Your task to perform on an android device: What's the weather today? Image 0: 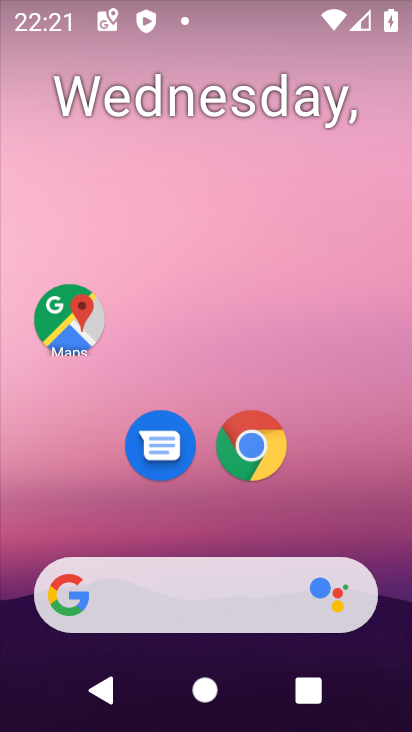
Step 0: drag from (274, 532) to (278, 172)
Your task to perform on an android device: What's the weather today? Image 1: 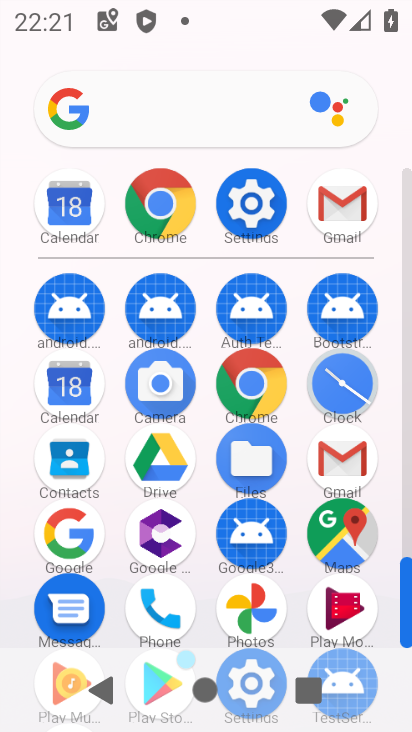
Step 1: click (248, 378)
Your task to perform on an android device: What's the weather today? Image 2: 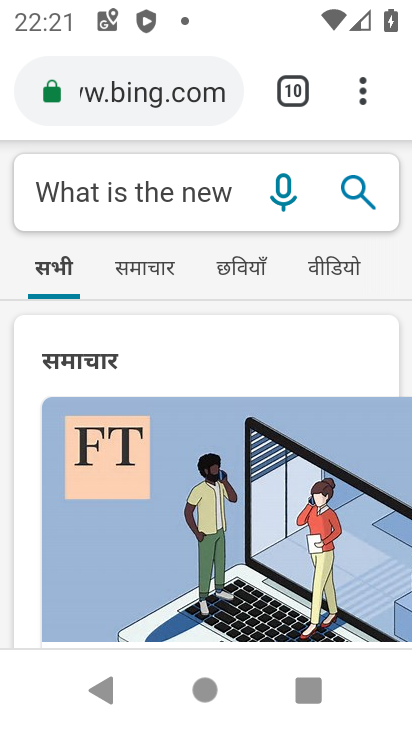
Step 2: click (350, 86)
Your task to perform on an android device: What's the weather today? Image 3: 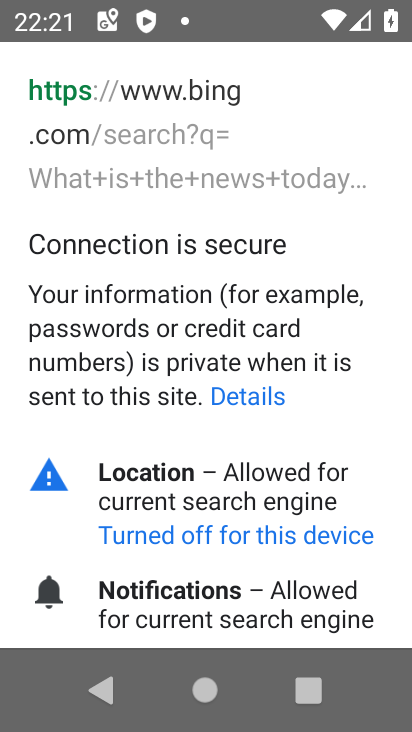
Step 3: press back button
Your task to perform on an android device: What's the weather today? Image 4: 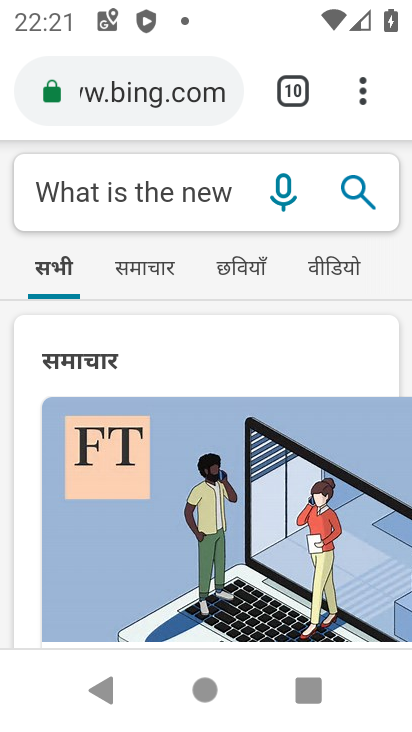
Step 4: click (365, 94)
Your task to perform on an android device: What's the weather today? Image 5: 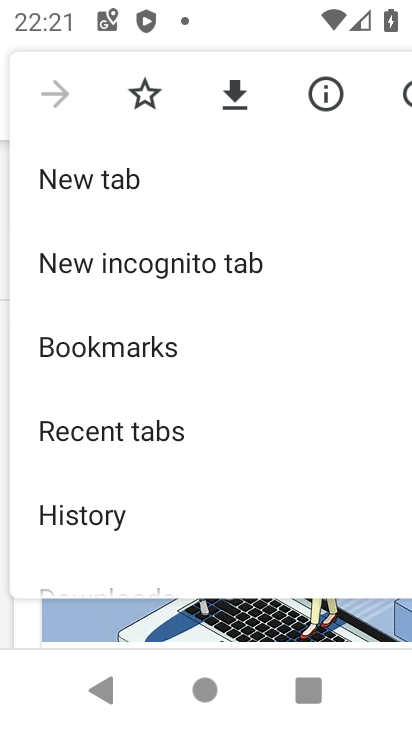
Step 5: click (137, 178)
Your task to perform on an android device: What's the weather today? Image 6: 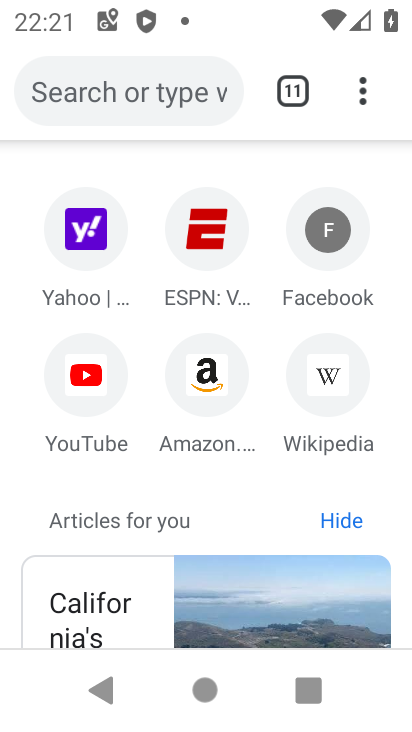
Step 6: click (147, 75)
Your task to perform on an android device: What's the weather today? Image 7: 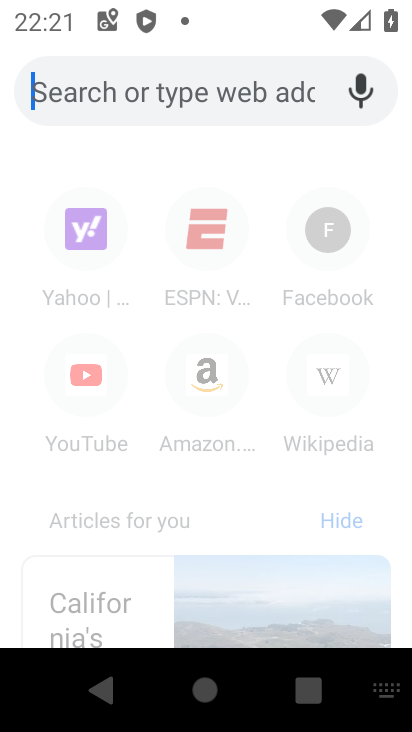
Step 7: type "What's the weather today?"
Your task to perform on an android device: What's the weather today? Image 8: 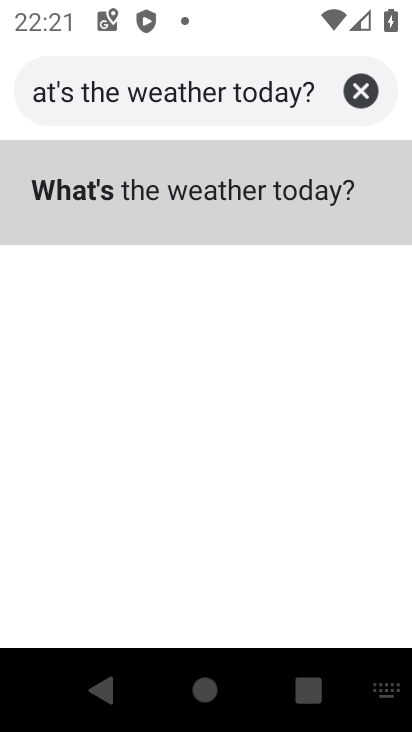
Step 8: click (232, 150)
Your task to perform on an android device: What's the weather today? Image 9: 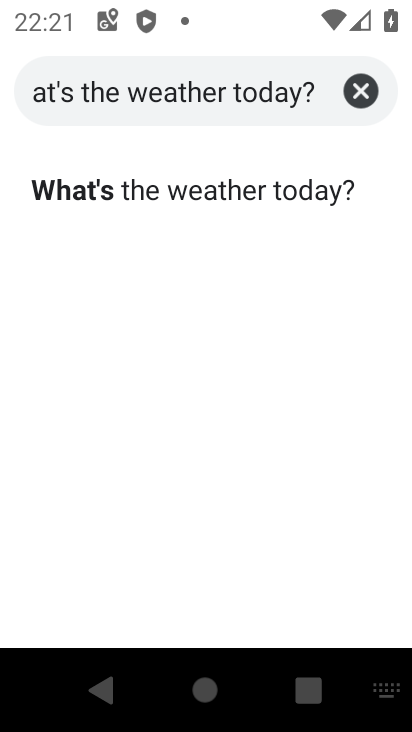
Step 9: click (229, 167)
Your task to perform on an android device: What's the weather today? Image 10: 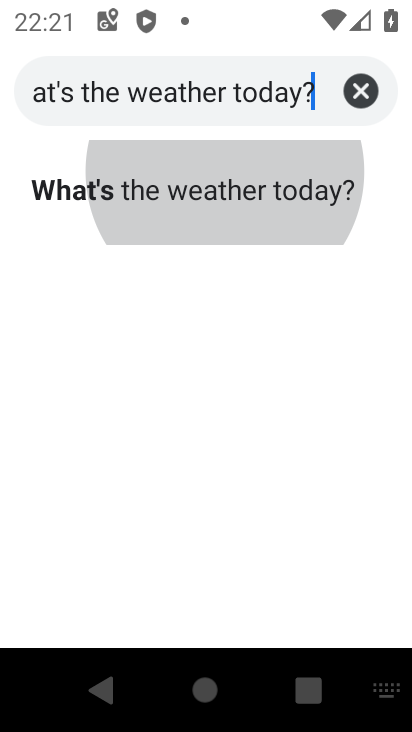
Step 10: click (229, 182)
Your task to perform on an android device: What's the weather today? Image 11: 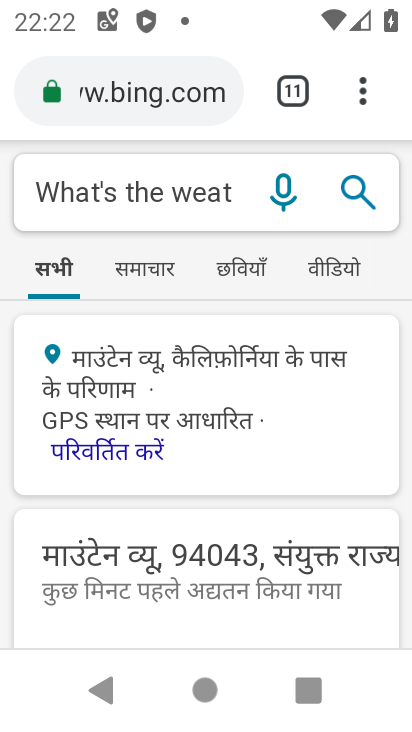
Step 11: task complete